Your task to perform on an android device: Show me the alarms in the clock app Image 0: 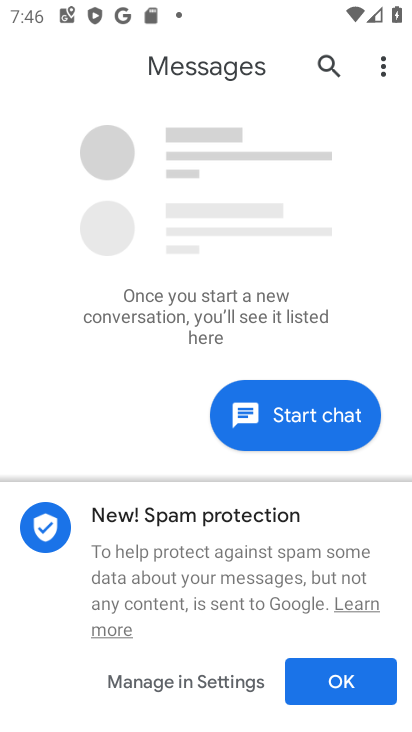
Step 0: press home button
Your task to perform on an android device: Show me the alarms in the clock app Image 1: 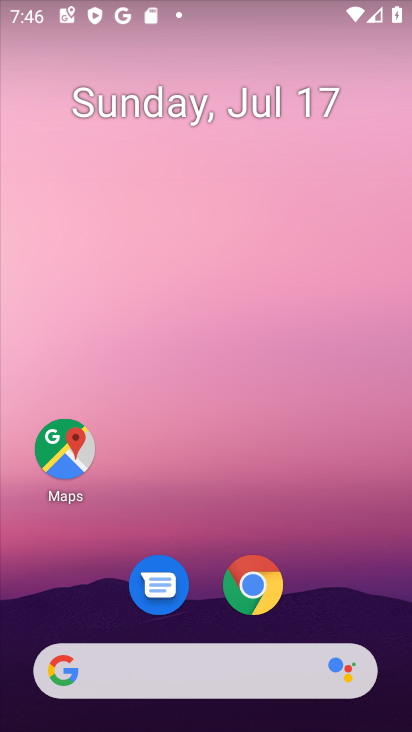
Step 1: drag from (320, 607) to (276, 73)
Your task to perform on an android device: Show me the alarms in the clock app Image 2: 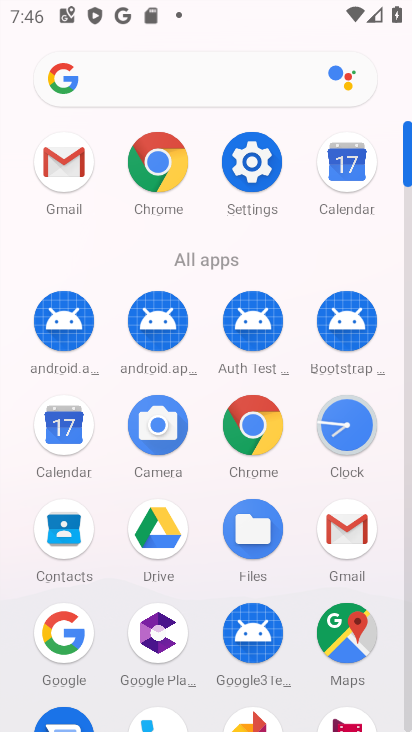
Step 2: click (350, 426)
Your task to perform on an android device: Show me the alarms in the clock app Image 3: 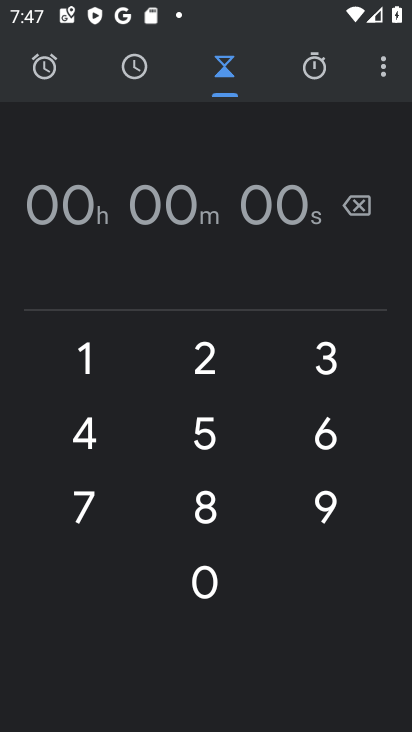
Step 3: click (47, 71)
Your task to perform on an android device: Show me the alarms in the clock app Image 4: 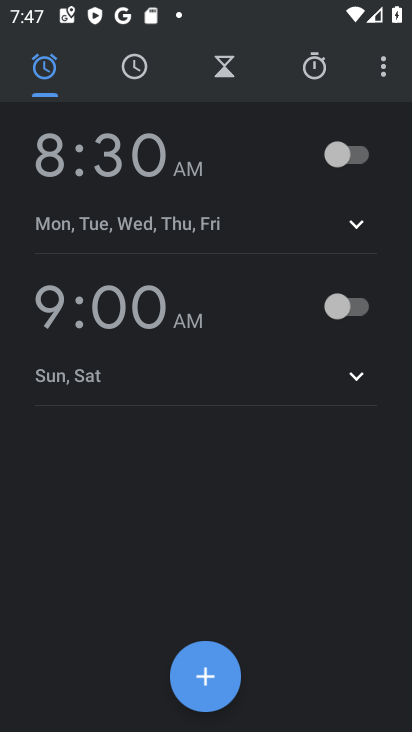
Step 4: task complete